Your task to perform on an android device: Search for Italian restaurants on Maps Image 0: 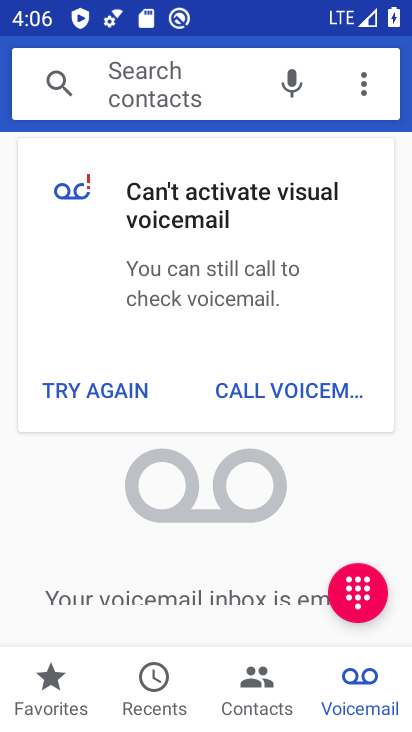
Step 0: press home button
Your task to perform on an android device: Search for Italian restaurants on Maps Image 1: 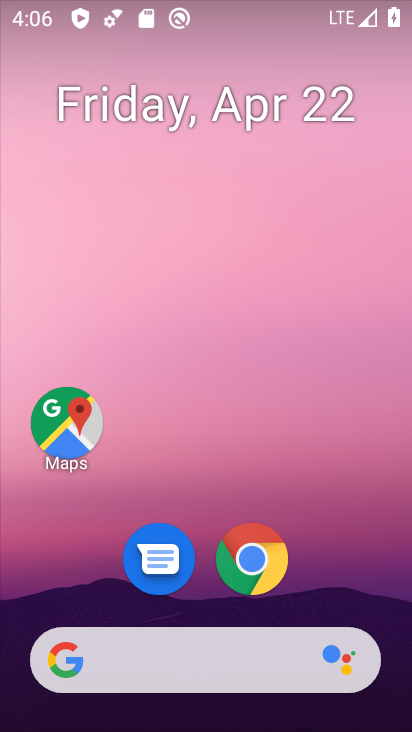
Step 1: click (68, 437)
Your task to perform on an android device: Search for Italian restaurants on Maps Image 2: 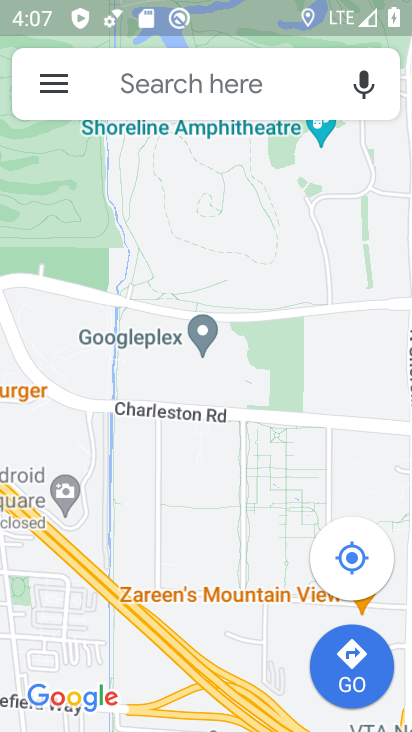
Step 2: click (184, 79)
Your task to perform on an android device: Search for Italian restaurants on Maps Image 3: 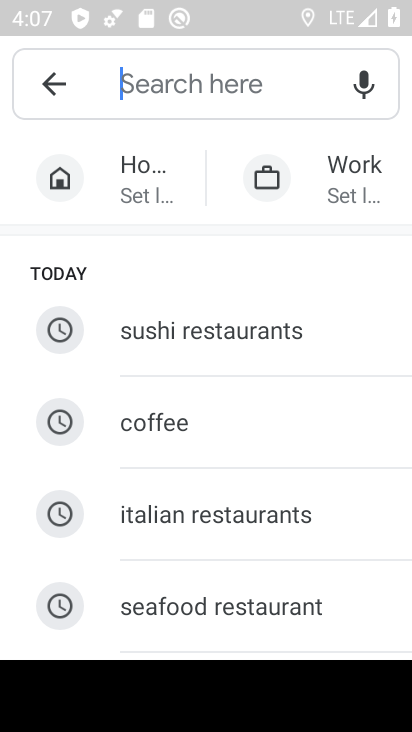
Step 3: click (270, 509)
Your task to perform on an android device: Search for Italian restaurants on Maps Image 4: 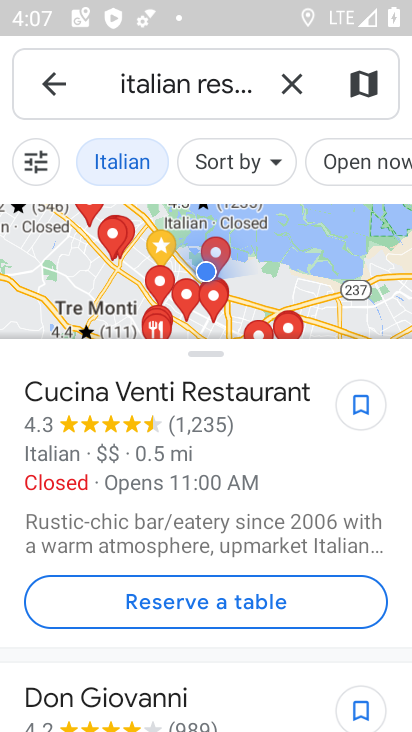
Step 4: task complete